Your task to perform on an android device: delete the emails in spam in the gmail app Image 0: 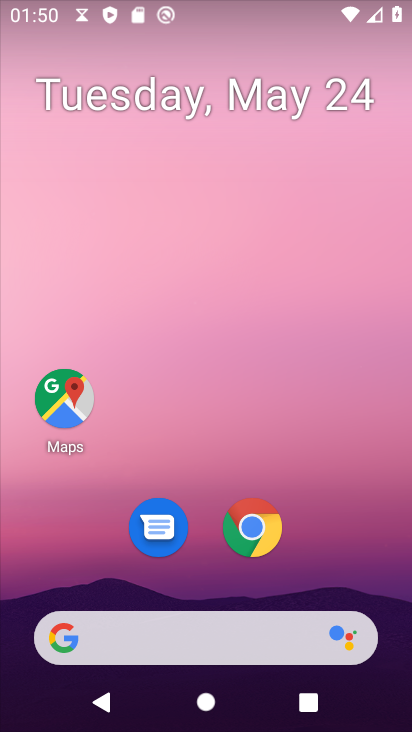
Step 0: press home button
Your task to perform on an android device: delete the emails in spam in the gmail app Image 1: 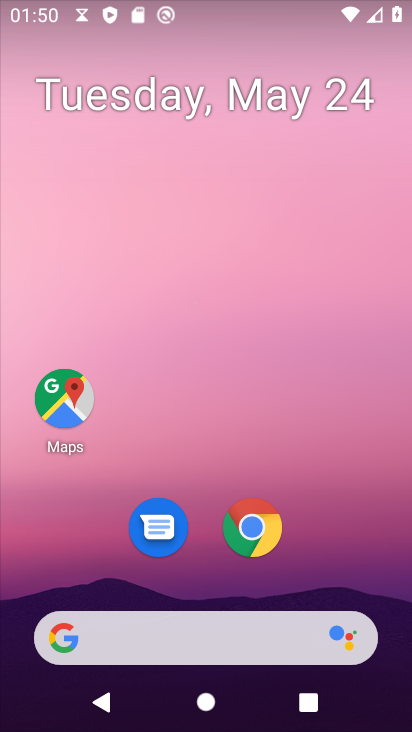
Step 1: drag from (132, 639) to (256, 171)
Your task to perform on an android device: delete the emails in spam in the gmail app Image 2: 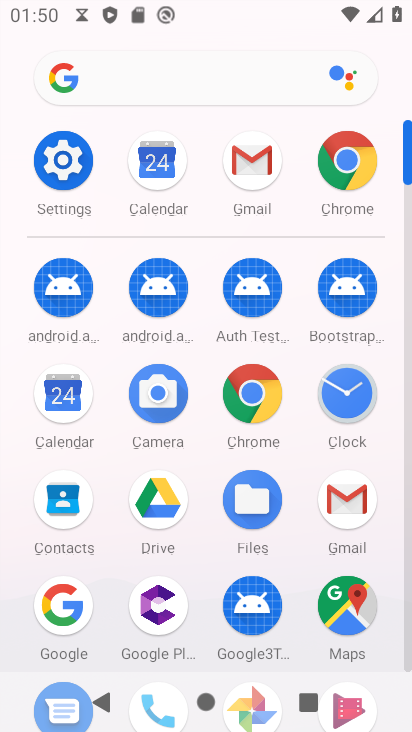
Step 2: click (251, 168)
Your task to perform on an android device: delete the emails in spam in the gmail app Image 3: 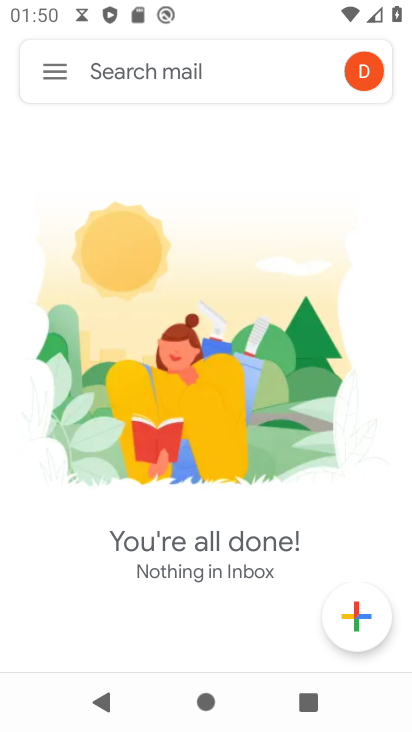
Step 3: click (57, 68)
Your task to perform on an android device: delete the emails in spam in the gmail app Image 4: 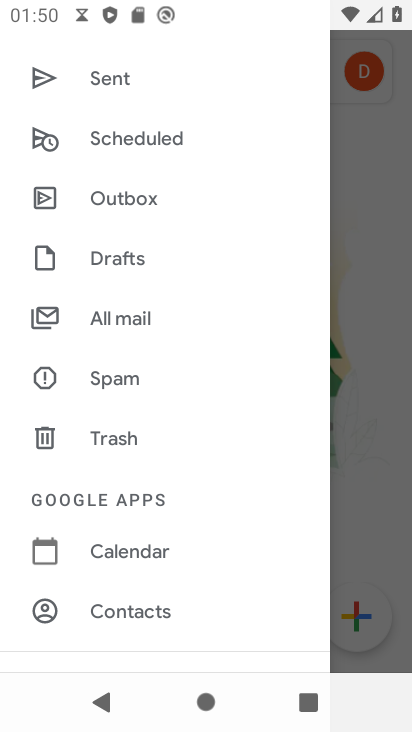
Step 4: click (112, 370)
Your task to perform on an android device: delete the emails in spam in the gmail app Image 5: 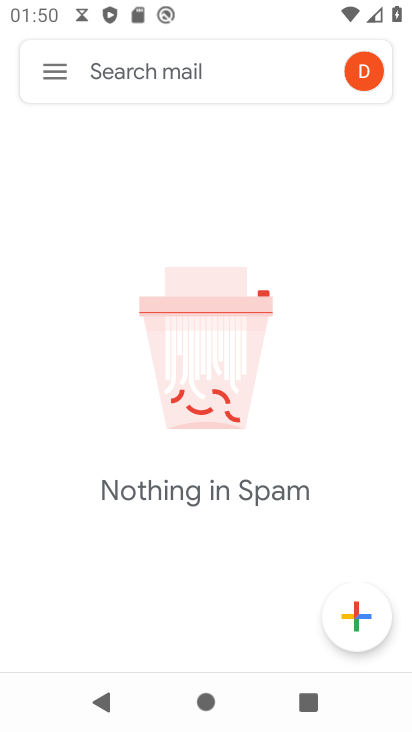
Step 5: task complete